Your task to perform on an android device: Toggle the flashlight Image 0: 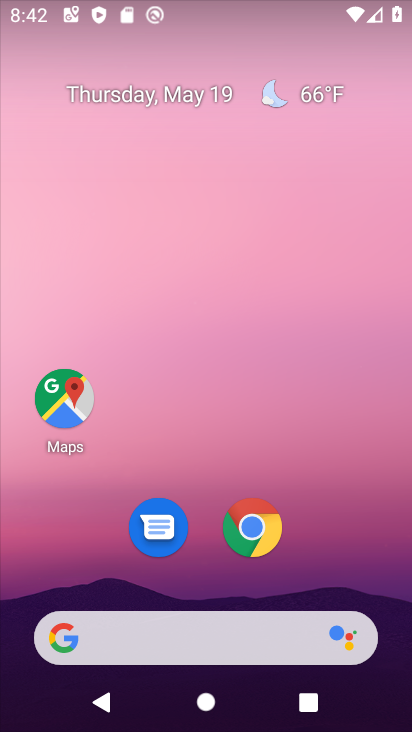
Step 0: drag from (298, 587) to (346, 33)
Your task to perform on an android device: Toggle the flashlight Image 1: 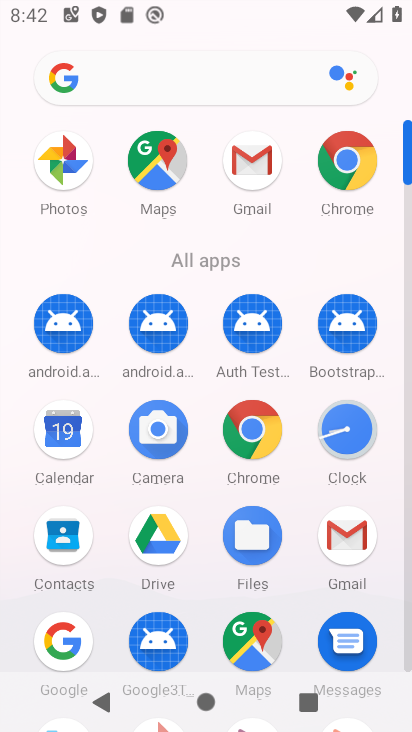
Step 1: drag from (197, 497) to (200, 269)
Your task to perform on an android device: Toggle the flashlight Image 2: 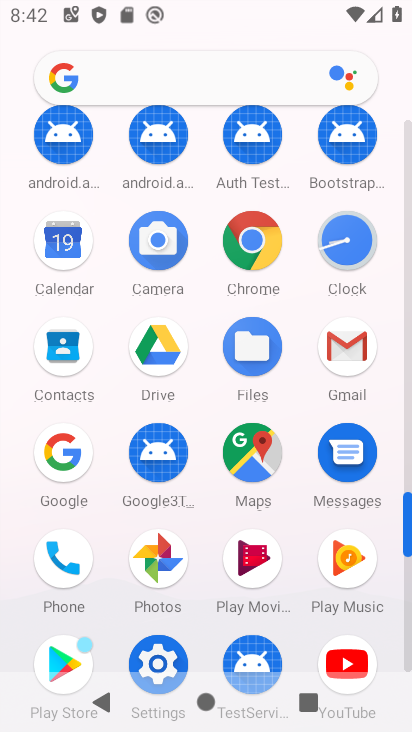
Step 2: click (154, 641)
Your task to perform on an android device: Toggle the flashlight Image 3: 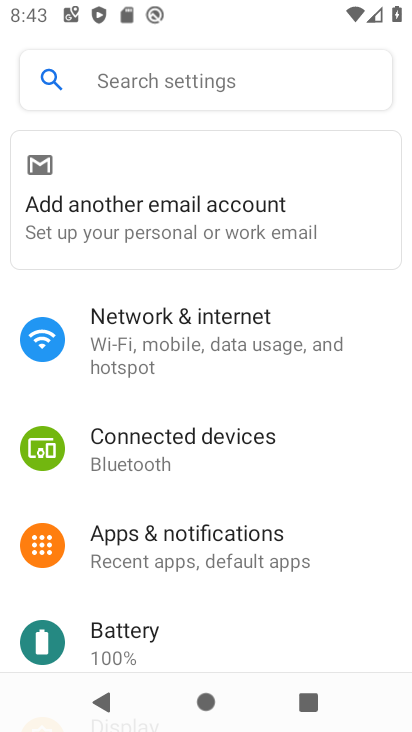
Step 3: task complete